Your task to perform on an android device: Clear the cart on walmart. Add razer blade to the cart on walmart Image 0: 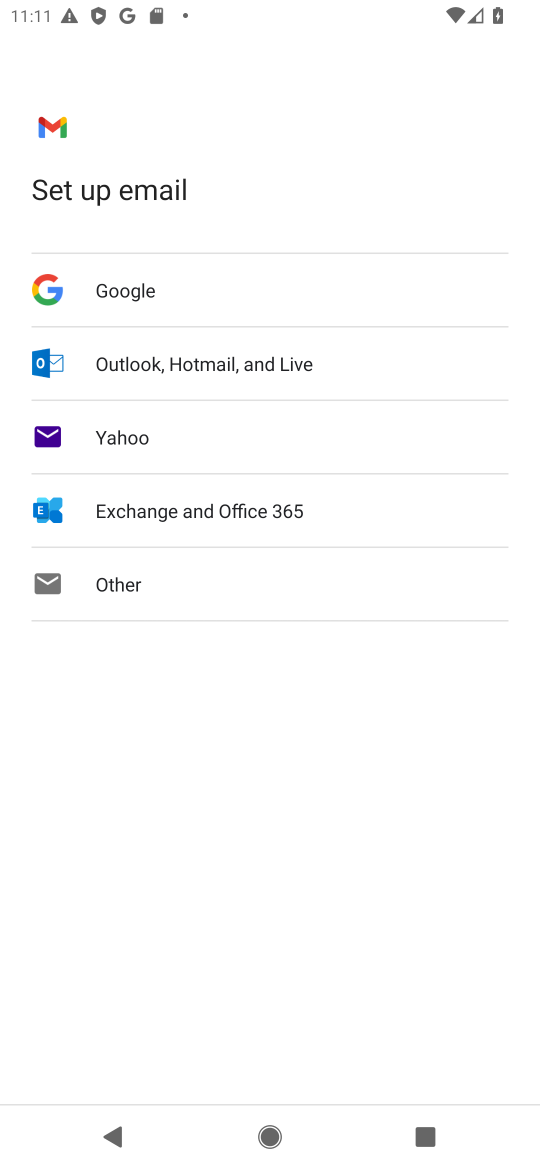
Step 0: press home button
Your task to perform on an android device: Clear the cart on walmart. Add razer blade to the cart on walmart Image 1: 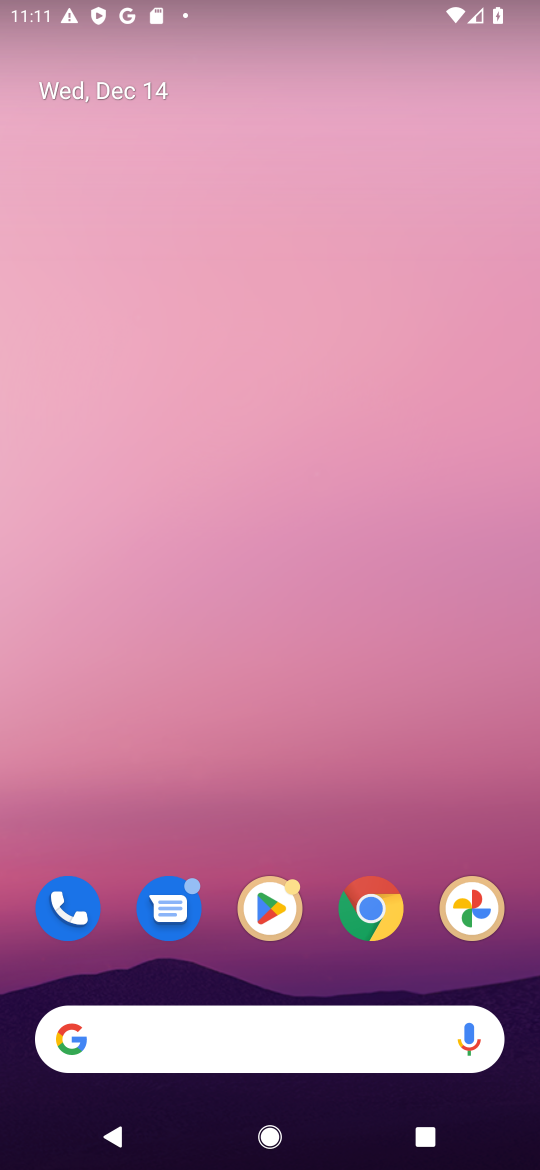
Step 1: click (376, 899)
Your task to perform on an android device: Clear the cart on walmart. Add razer blade to the cart on walmart Image 2: 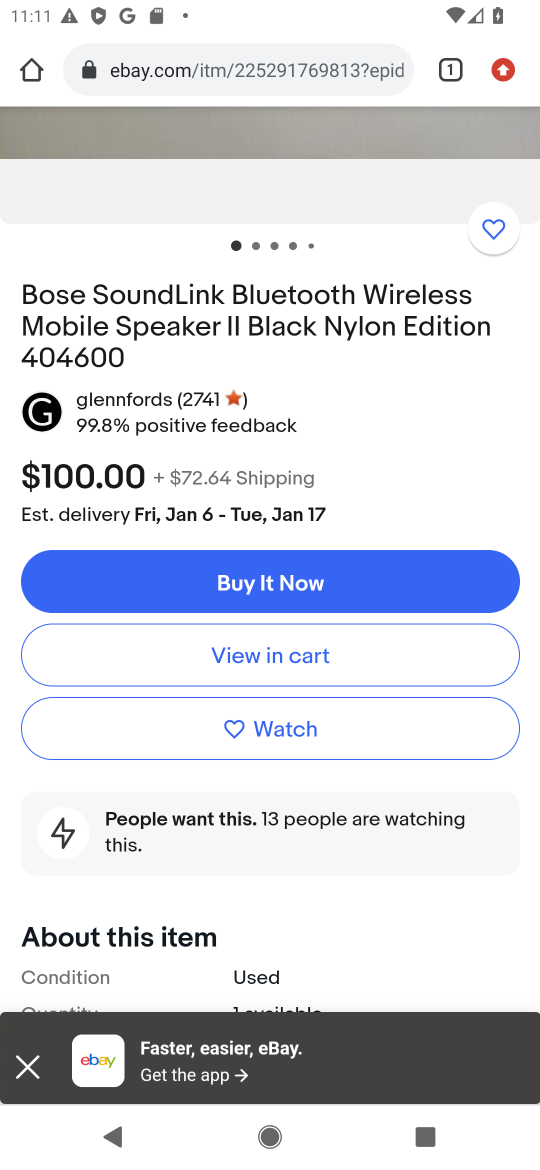
Step 2: click (245, 80)
Your task to perform on an android device: Clear the cart on walmart. Add razer blade to the cart on walmart Image 3: 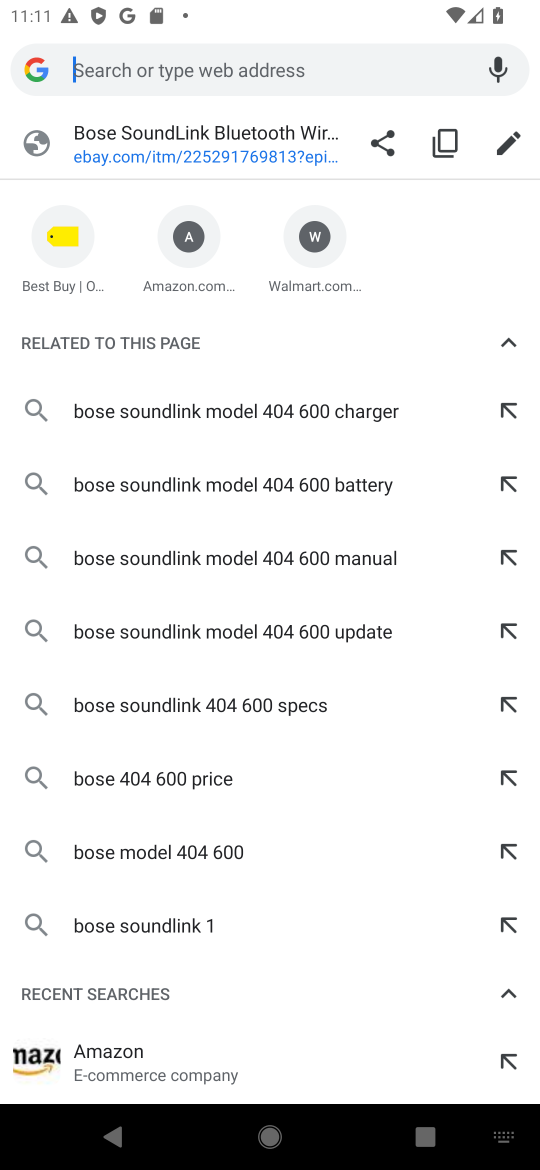
Step 3: type "walmart"
Your task to perform on an android device: Clear the cart on walmart. Add razer blade to the cart on walmart Image 4: 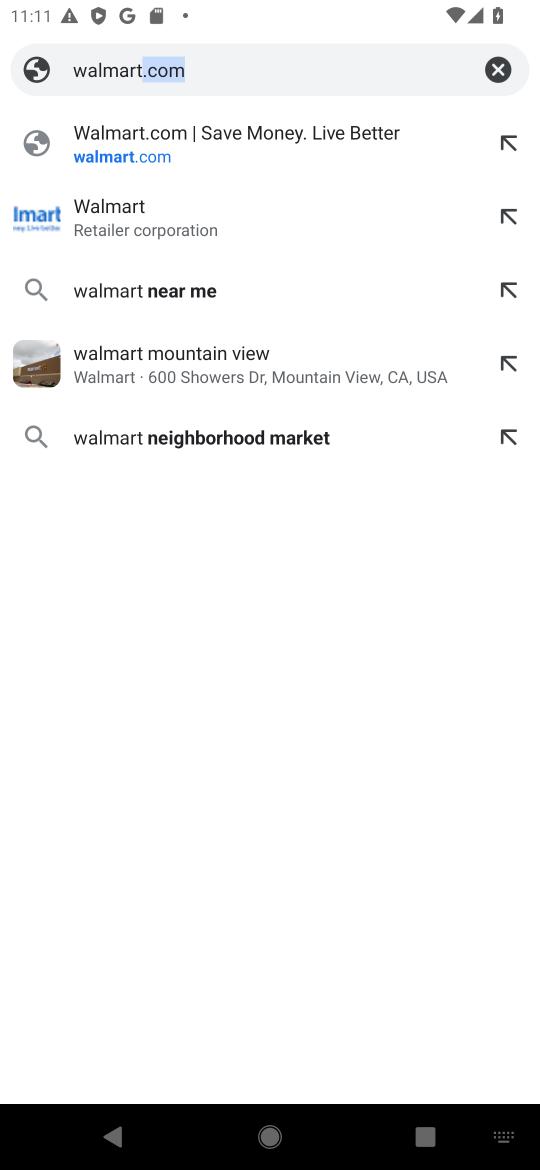
Step 4: click (192, 133)
Your task to perform on an android device: Clear the cart on walmart. Add razer blade to the cart on walmart Image 5: 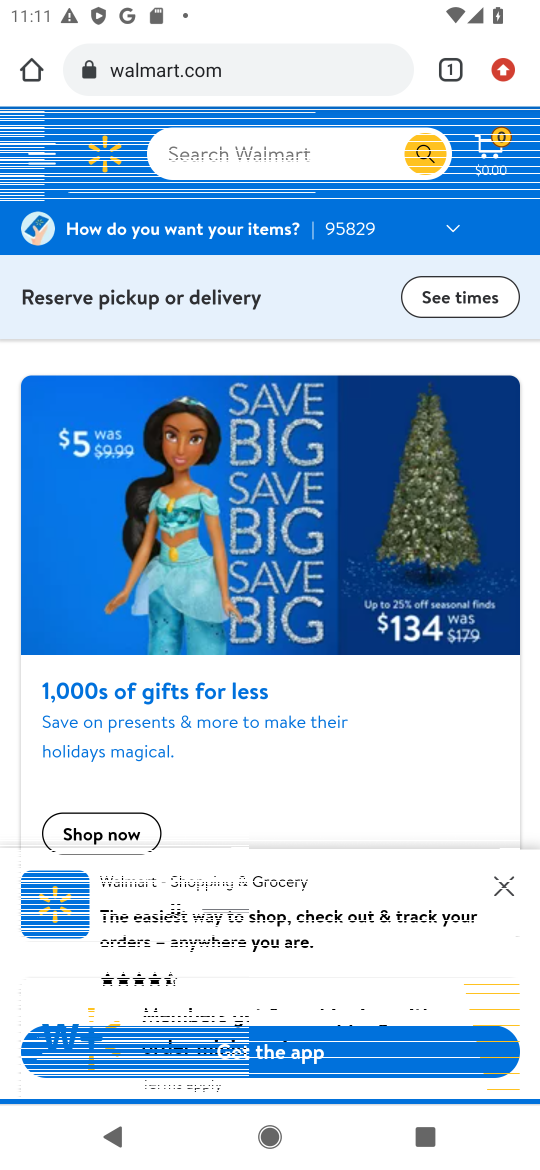
Step 5: click (207, 155)
Your task to perform on an android device: Clear the cart on walmart. Add razer blade to the cart on walmart Image 6: 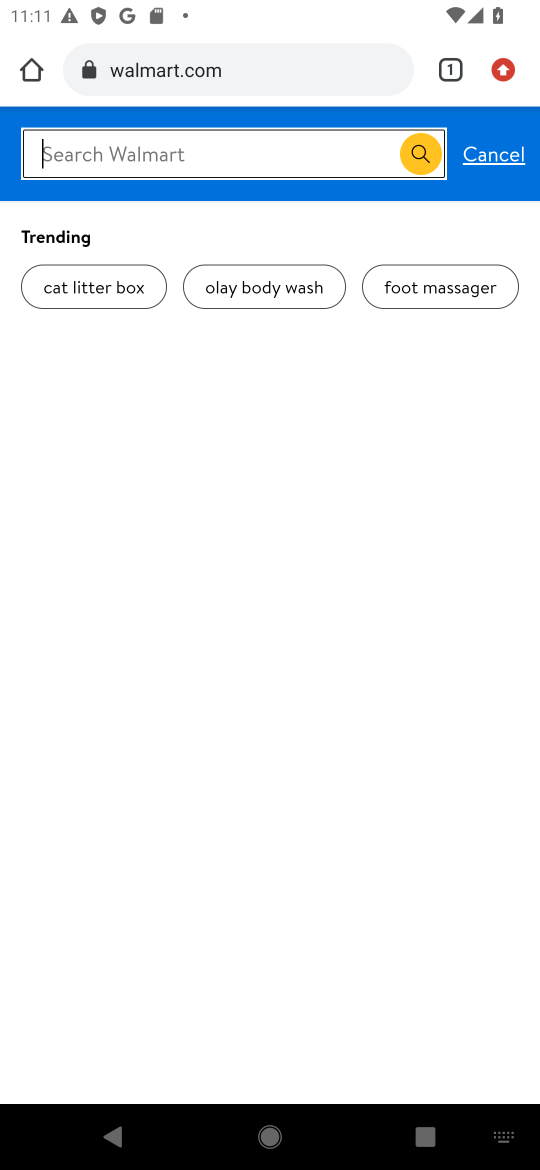
Step 6: type "razer blade"
Your task to perform on an android device: Clear the cart on walmart. Add razer blade to the cart on walmart Image 7: 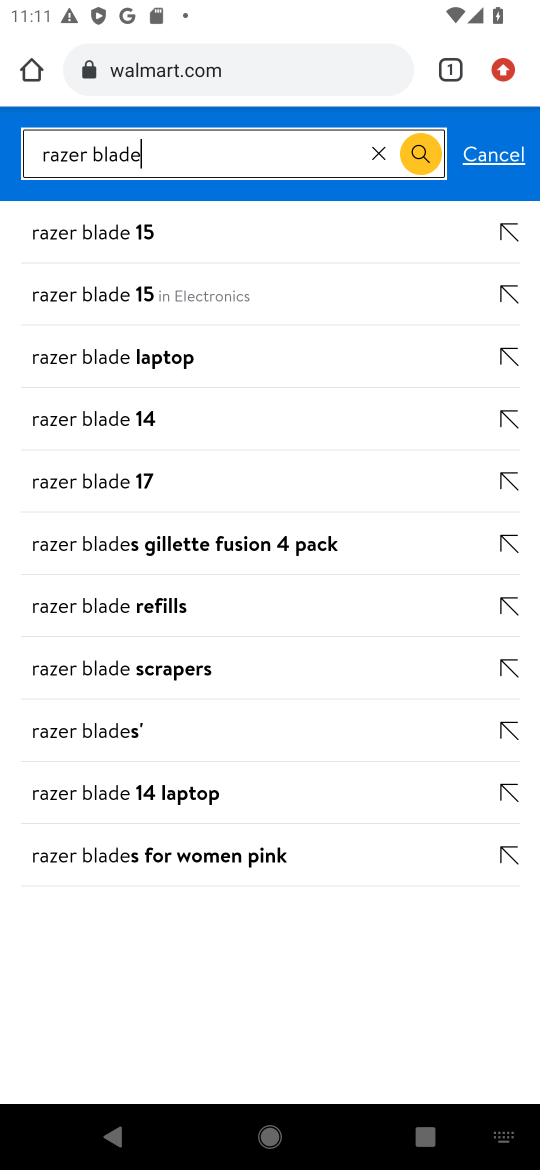
Step 7: click (423, 152)
Your task to perform on an android device: Clear the cart on walmart. Add razer blade to the cart on walmart Image 8: 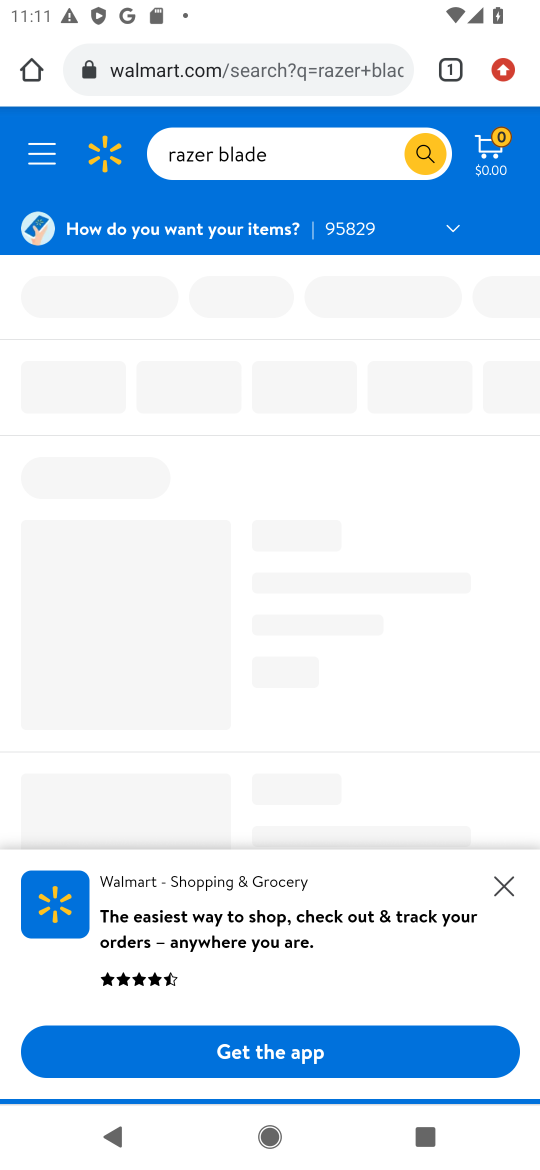
Step 8: click (423, 152)
Your task to perform on an android device: Clear the cart on walmart. Add razer blade to the cart on walmart Image 9: 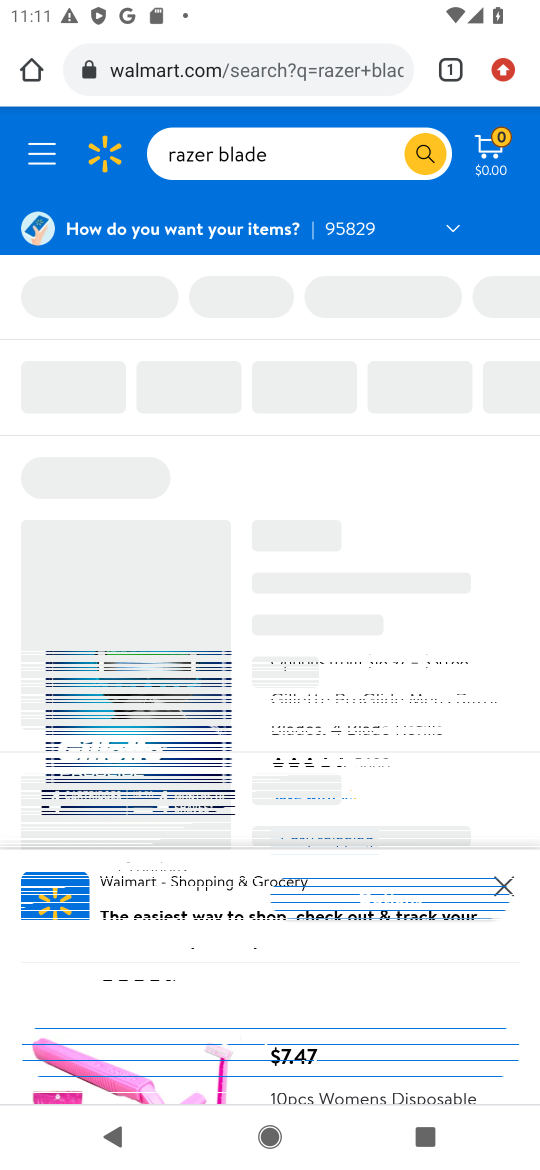
Step 9: click (500, 901)
Your task to perform on an android device: Clear the cart on walmart. Add razer blade to the cart on walmart Image 10: 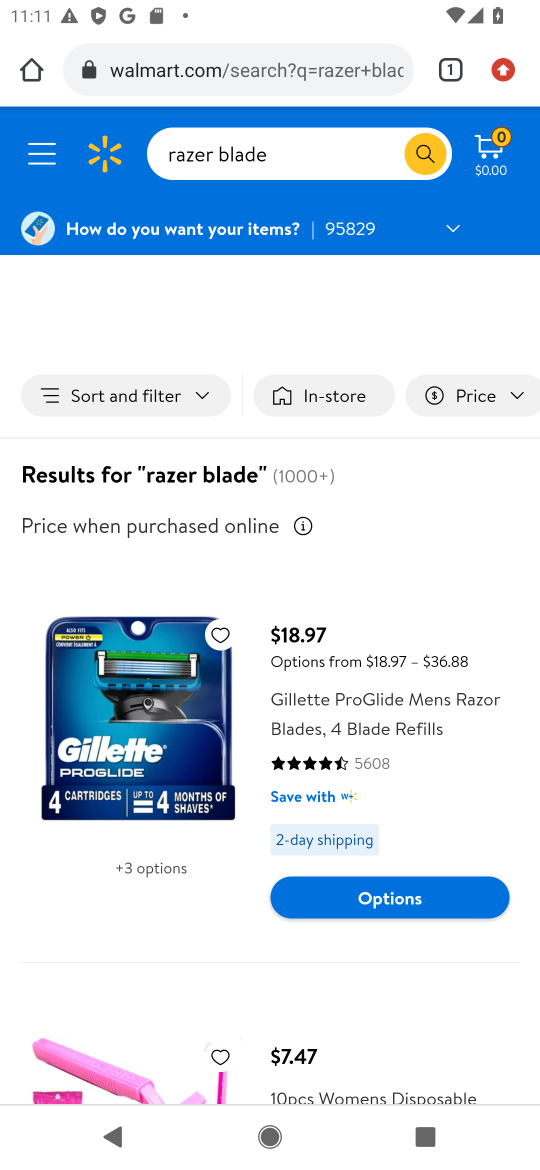
Step 10: click (425, 901)
Your task to perform on an android device: Clear the cart on walmart. Add razer blade to the cart on walmart Image 11: 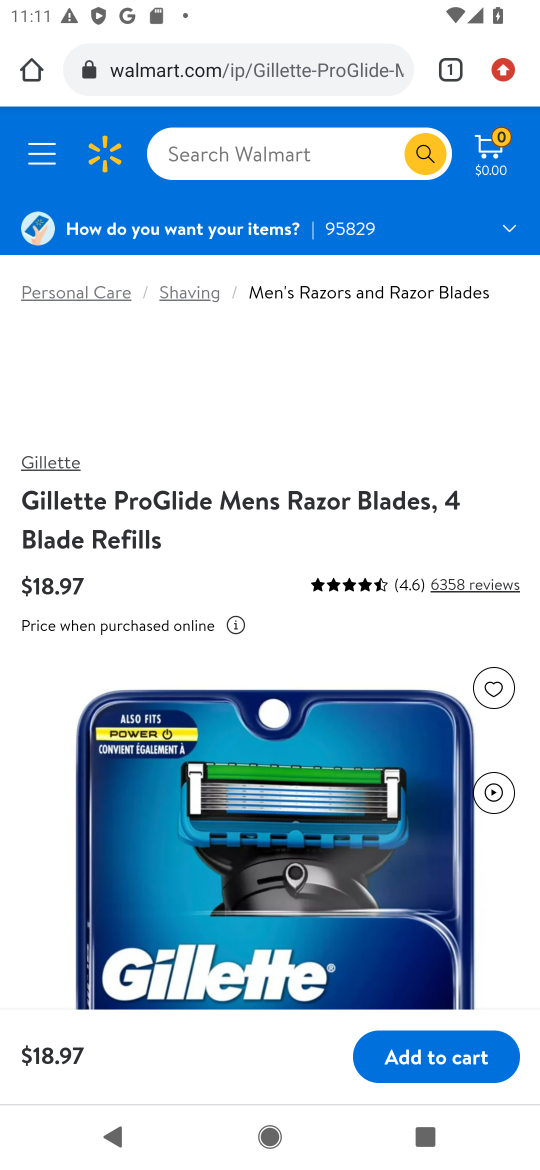
Step 11: click (433, 1064)
Your task to perform on an android device: Clear the cart on walmart. Add razer blade to the cart on walmart Image 12: 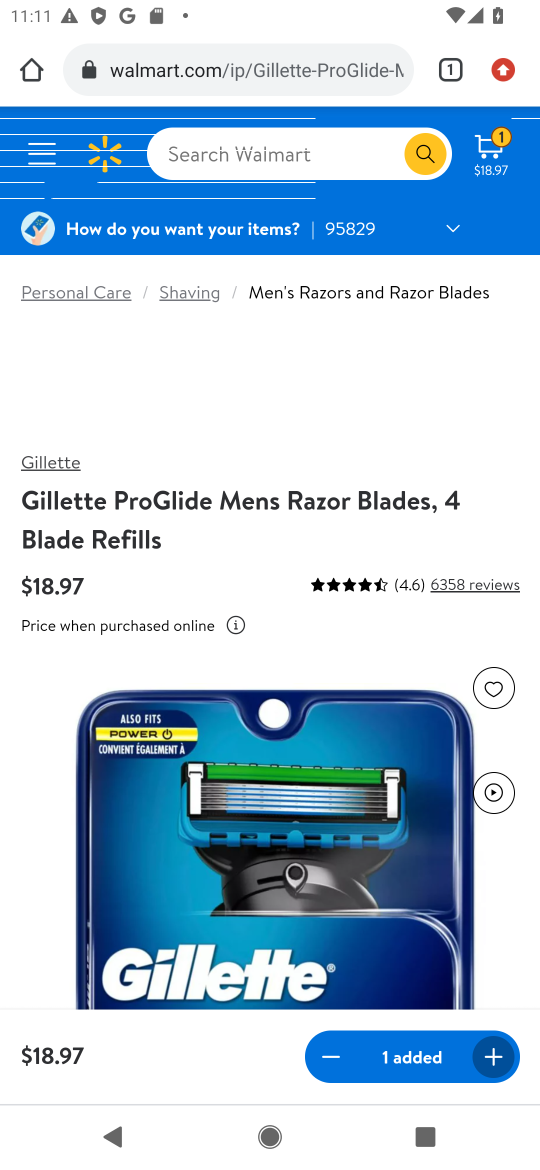
Step 12: task complete